Your task to perform on an android device: Clear the cart on newegg.com. Add "acer nitro" to the cart on newegg.com Image 0: 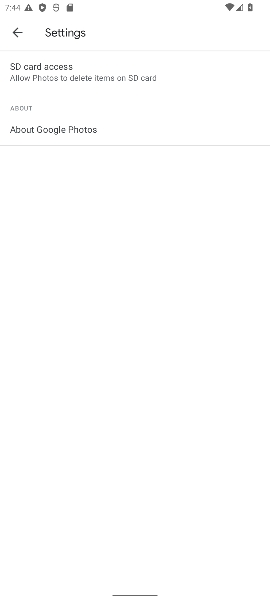
Step 0: press home button
Your task to perform on an android device: Clear the cart on newegg.com. Add "acer nitro" to the cart on newegg.com Image 1: 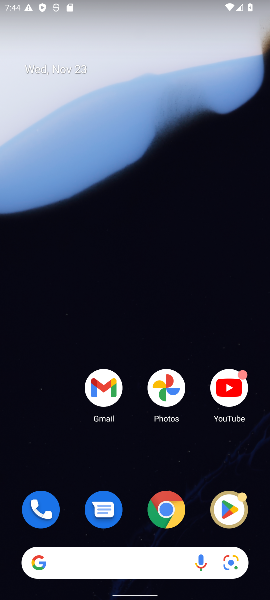
Step 1: click (164, 525)
Your task to perform on an android device: Clear the cart on newegg.com. Add "acer nitro" to the cart on newegg.com Image 2: 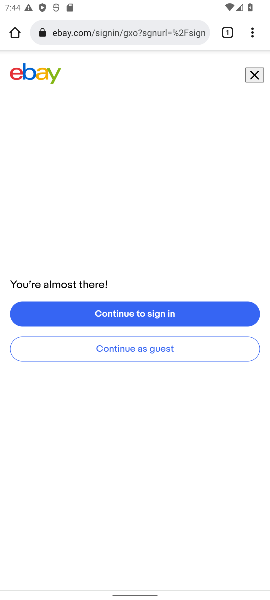
Step 2: click (141, 32)
Your task to perform on an android device: Clear the cart on newegg.com. Add "acer nitro" to the cart on newegg.com Image 3: 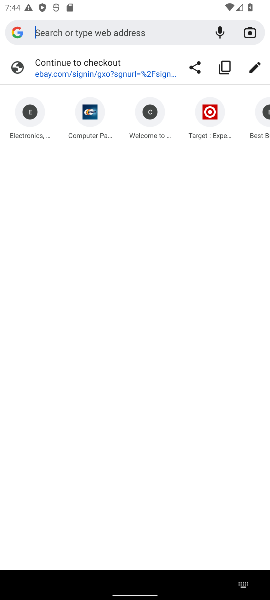
Step 3: type "newegg.com"
Your task to perform on an android device: Clear the cart on newegg.com. Add "acer nitro" to the cart on newegg.com Image 4: 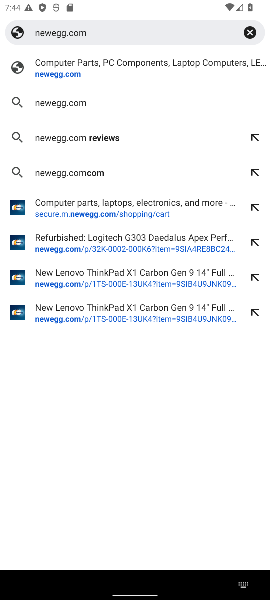
Step 4: click (125, 71)
Your task to perform on an android device: Clear the cart on newegg.com. Add "acer nitro" to the cart on newegg.com Image 5: 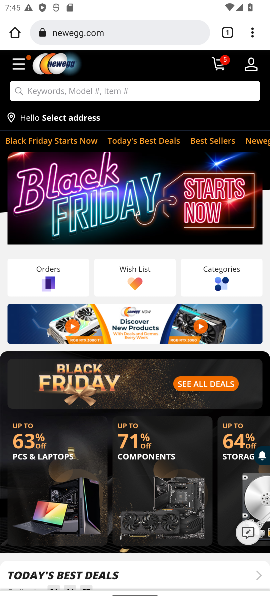
Step 5: click (122, 97)
Your task to perform on an android device: Clear the cart on newegg.com. Add "acer nitro" to the cart on newegg.com Image 6: 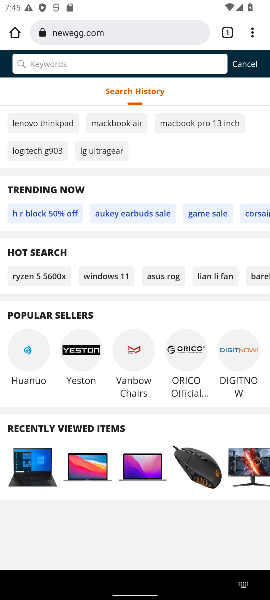
Step 6: type "acer nitro"
Your task to perform on an android device: Clear the cart on newegg.com. Add "acer nitro" to the cart on newegg.com Image 7: 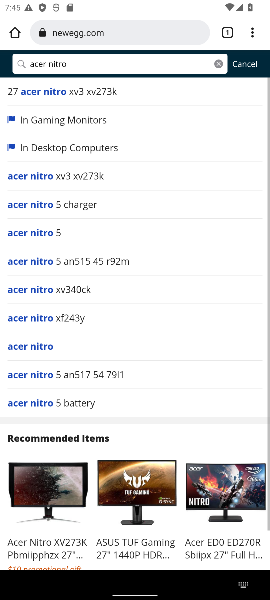
Step 7: press enter
Your task to perform on an android device: Clear the cart on newegg.com. Add "acer nitro" to the cart on newegg.com Image 8: 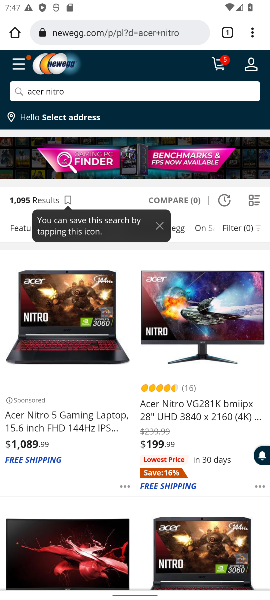
Step 8: click (47, 320)
Your task to perform on an android device: Clear the cart on newegg.com. Add "acer nitro" to the cart on newegg.com Image 9: 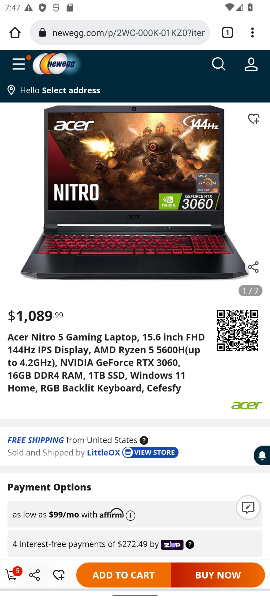
Step 9: click (143, 577)
Your task to perform on an android device: Clear the cart on newegg.com. Add "acer nitro" to the cart on newegg.com Image 10: 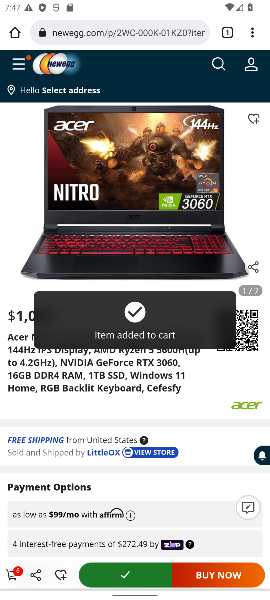
Step 10: task complete